Your task to perform on an android device: turn notification dots on Image 0: 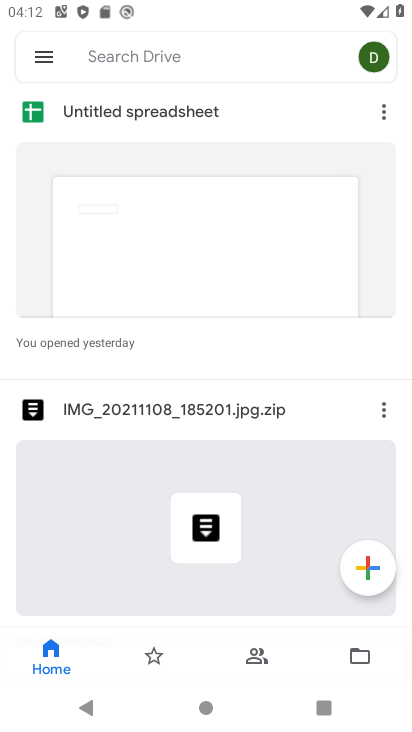
Step 0: press home button
Your task to perform on an android device: turn notification dots on Image 1: 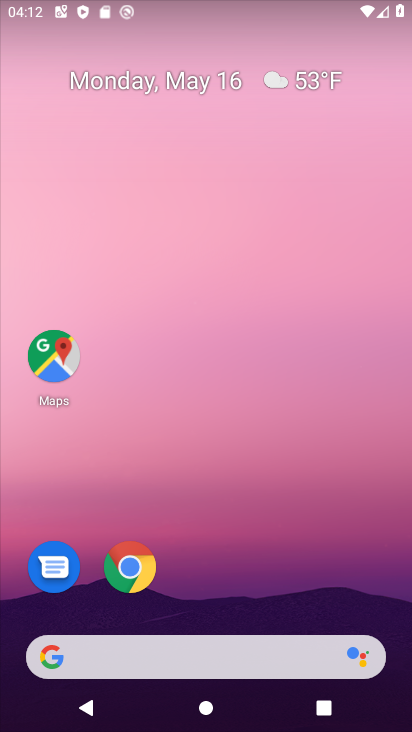
Step 1: drag from (217, 646) to (294, 43)
Your task to perform on an android device: turn notification dots on Image 2: 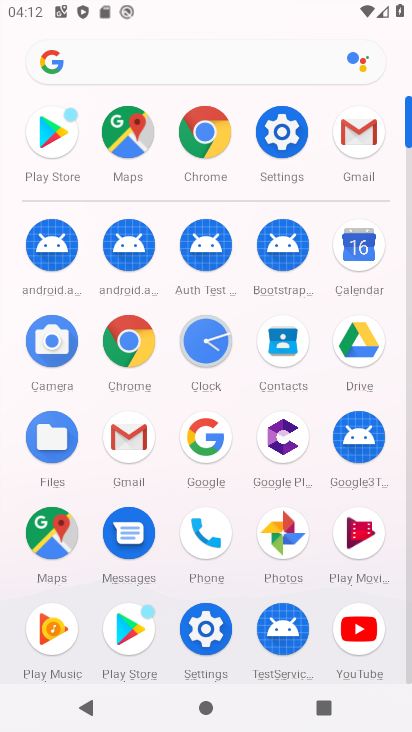
Step 2: click (292, 128)
Your task to perform on an android device: turn notification dots on Image 3: 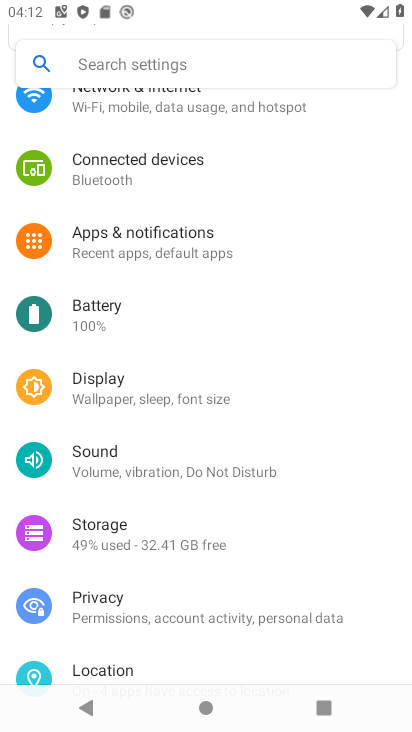
Step 3: click (234, 241)
Your task to perform on an android device: turn notification dots on Image 4: 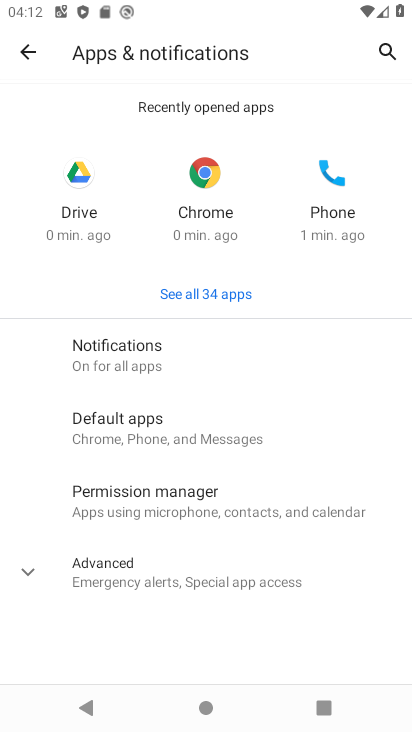
Step 4: click (166, 375)
Your task to perform on an android device: turn notification dots on Image 5: 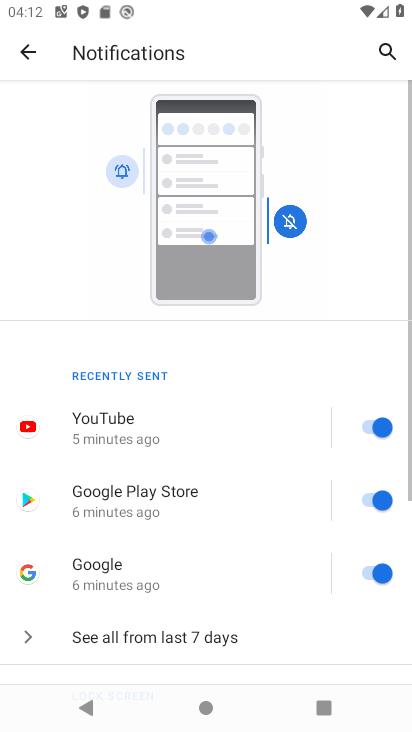
Step 5: drag from (223, 646) to (249, 96)
Your task to perform on an android device: turn notification dots on Image 6: 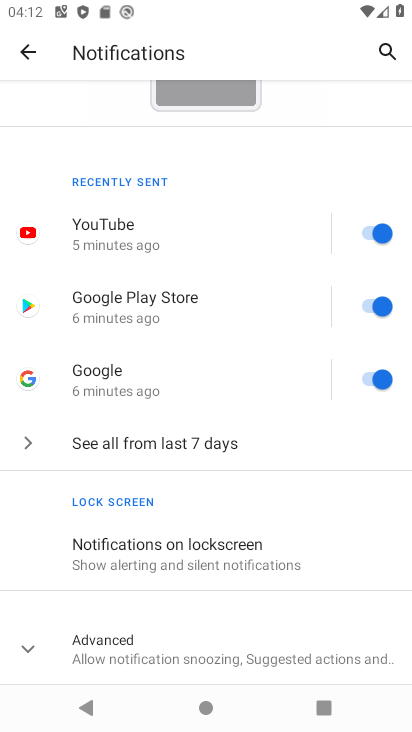
Step 6: click (209, 650)
Your task to perform on an android device: turn notification dots on Image 7: 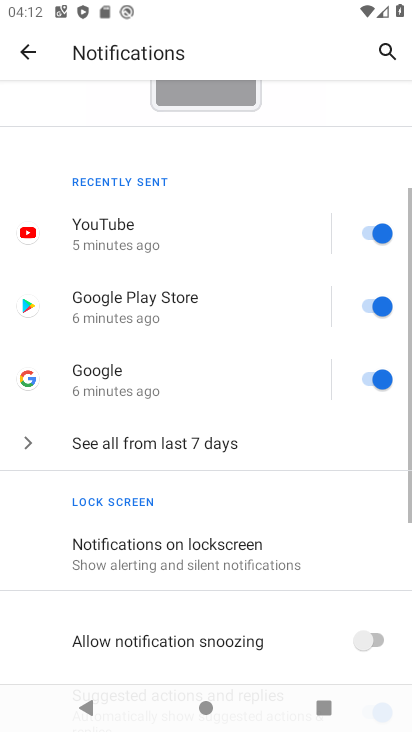
Step 7: task complete